Your task to perform on an android device: Clear the cart on bestbuy. Add energizer triple a to the cart on bestbuy, then select checkout. Image 0: 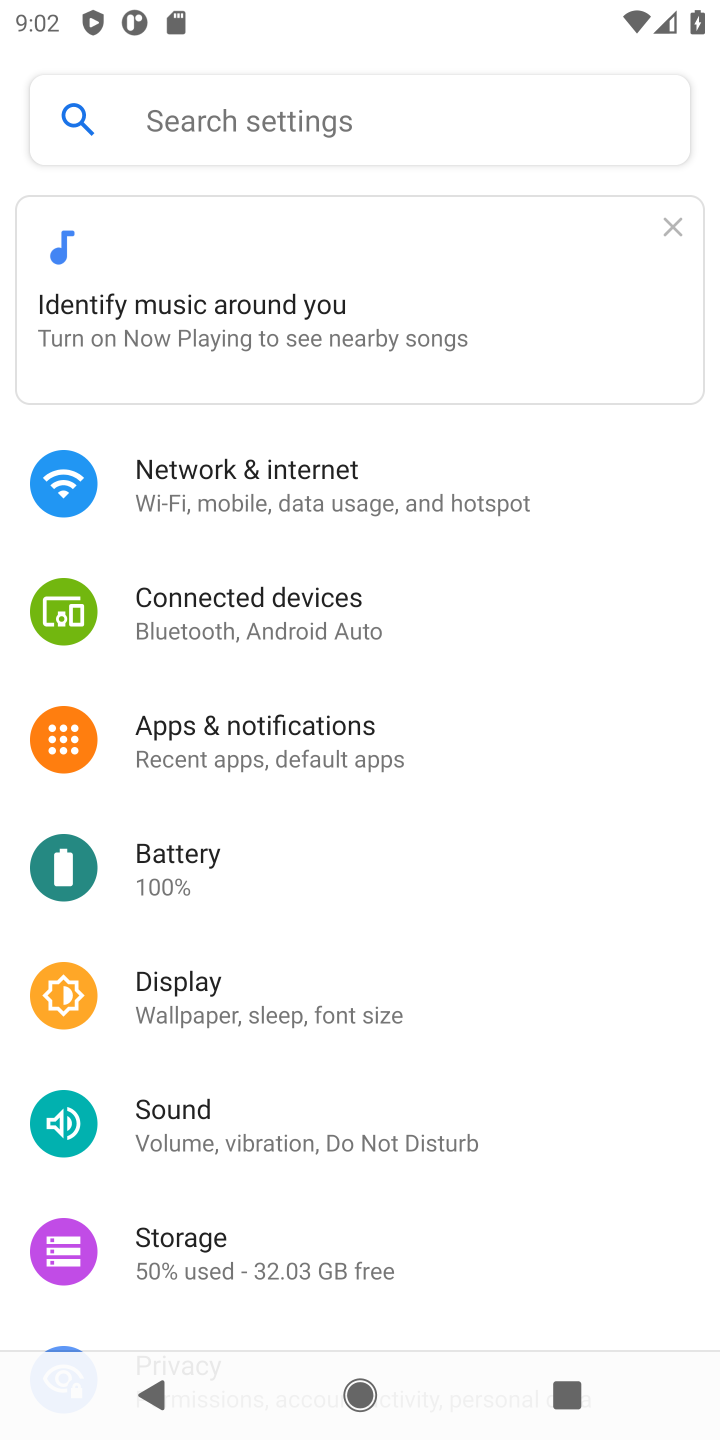
Step 0: press home button
Your task to perform on an android device: Clear the cart on bestbuy. Add energizer triple a to the cart on bestbuy, then select checkout. Image 1: 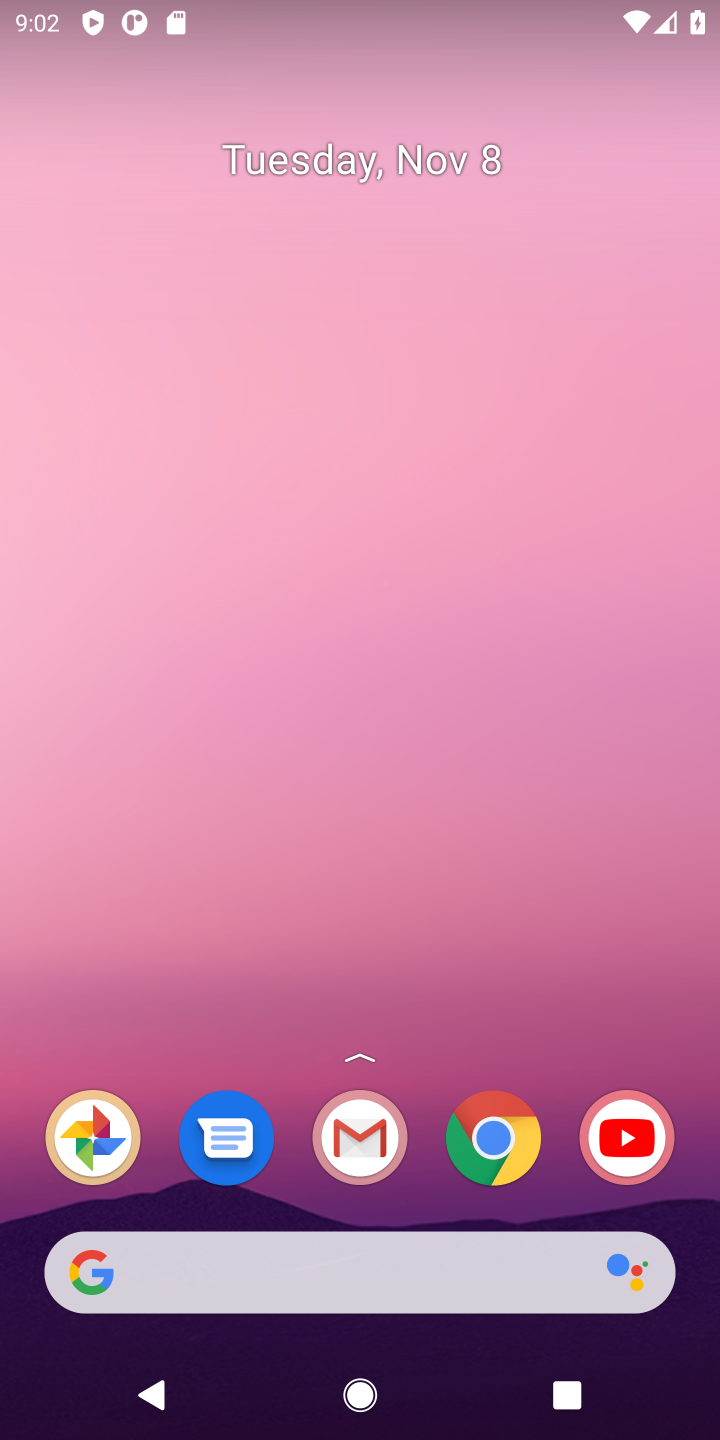
Step 1: click (491, 1144)
Your task to perform on an android device: Clear the cart on bestbuy. Add energizer triple a to the cart on bestbuy, then select checkout. Image 2: 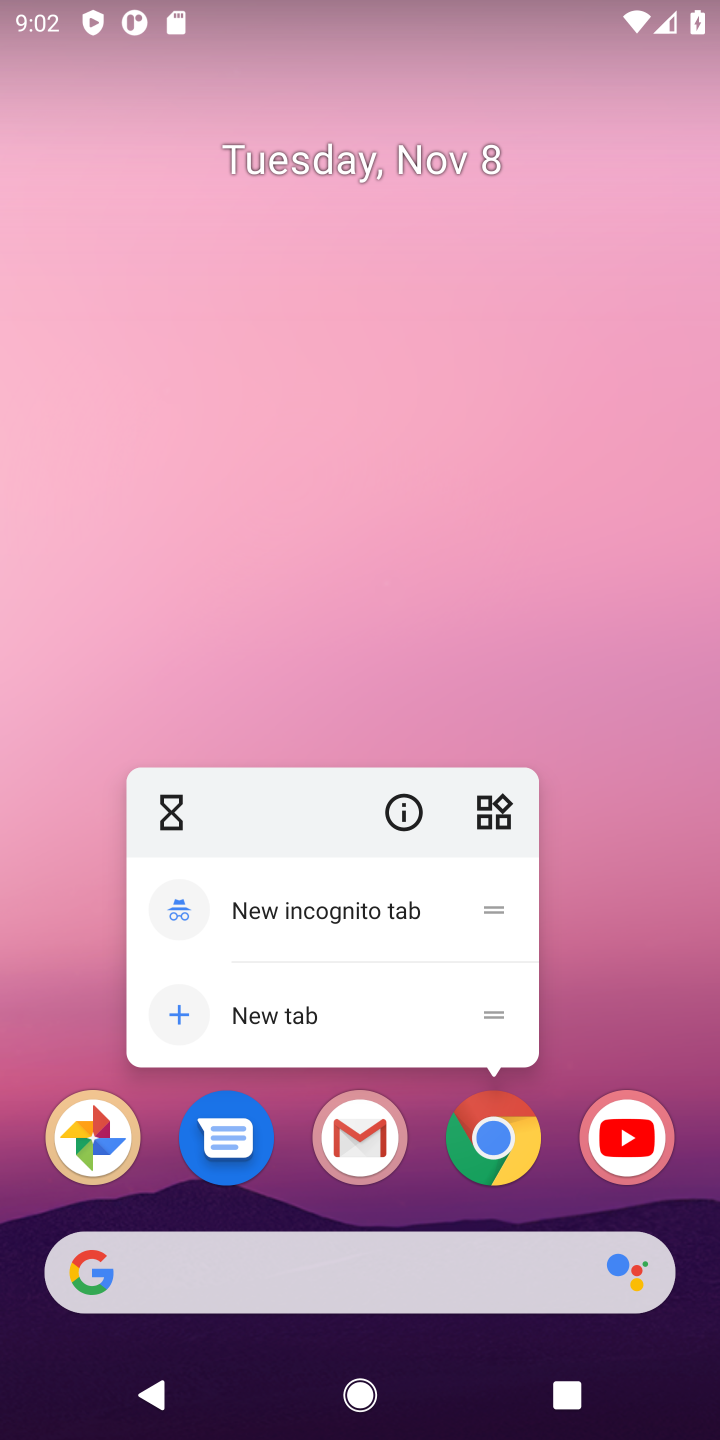
Step 2: click (491, 1142)
Your task to perform on an android device: Clear the cart on bestbuy. Add energizer triple a to the cart on bestbuy, then select checkout. Image 3: 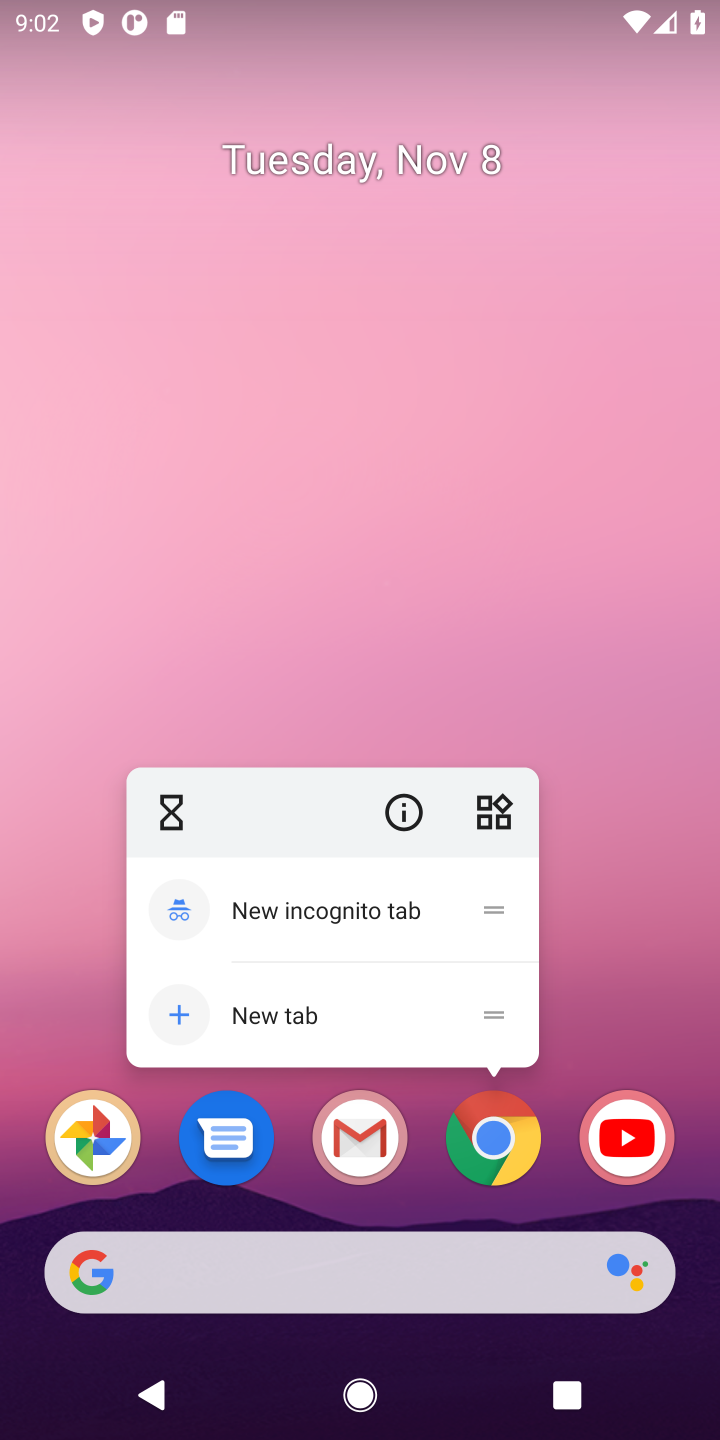
Step 3: click (491, 1146)
Your task to perform on an android device: Clear the cart on bestbuy. Add energizer triple a to the cart on bestbuy, then select checkout. Image 4: 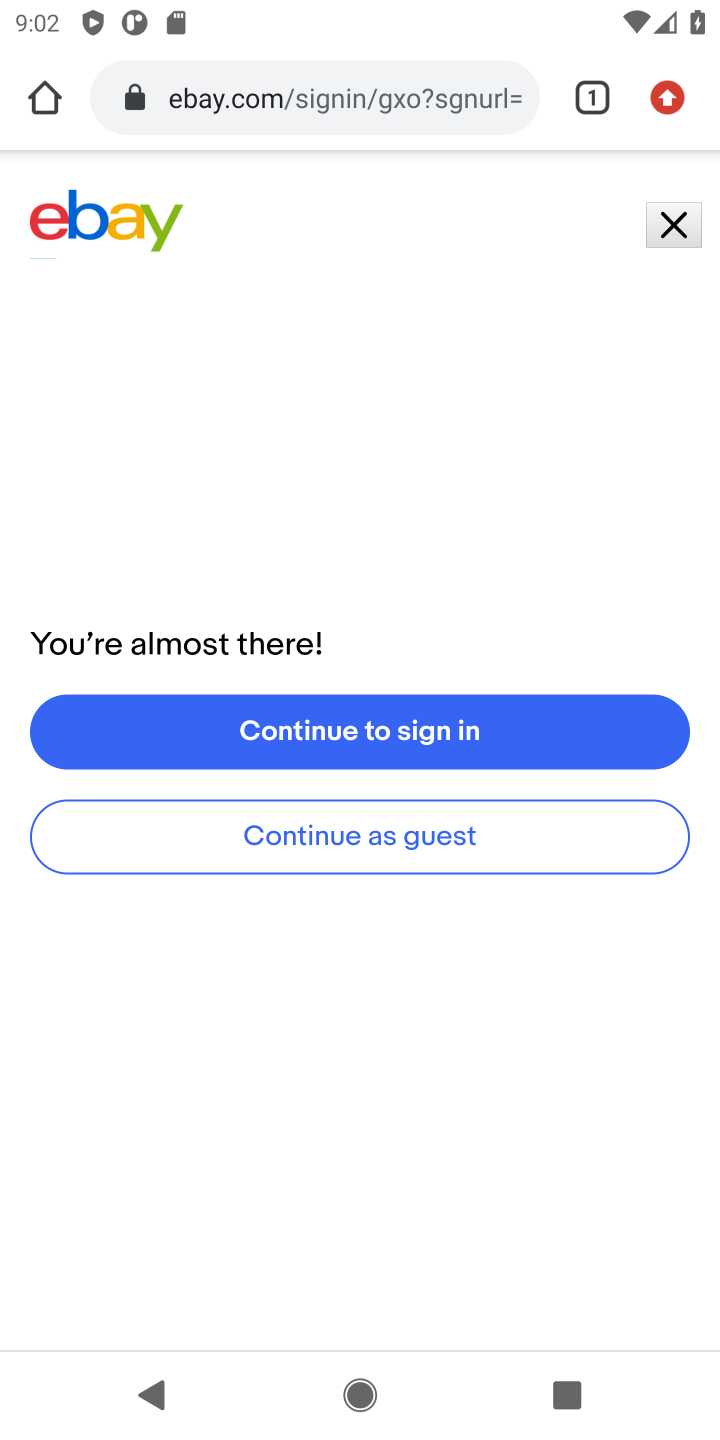
Step 4: click (387, 87)
Your task to perform on an android device: Clear the cart on bestbuy. Add energizer triple a to the cart on bestbuy, then select checkout. Image 5: 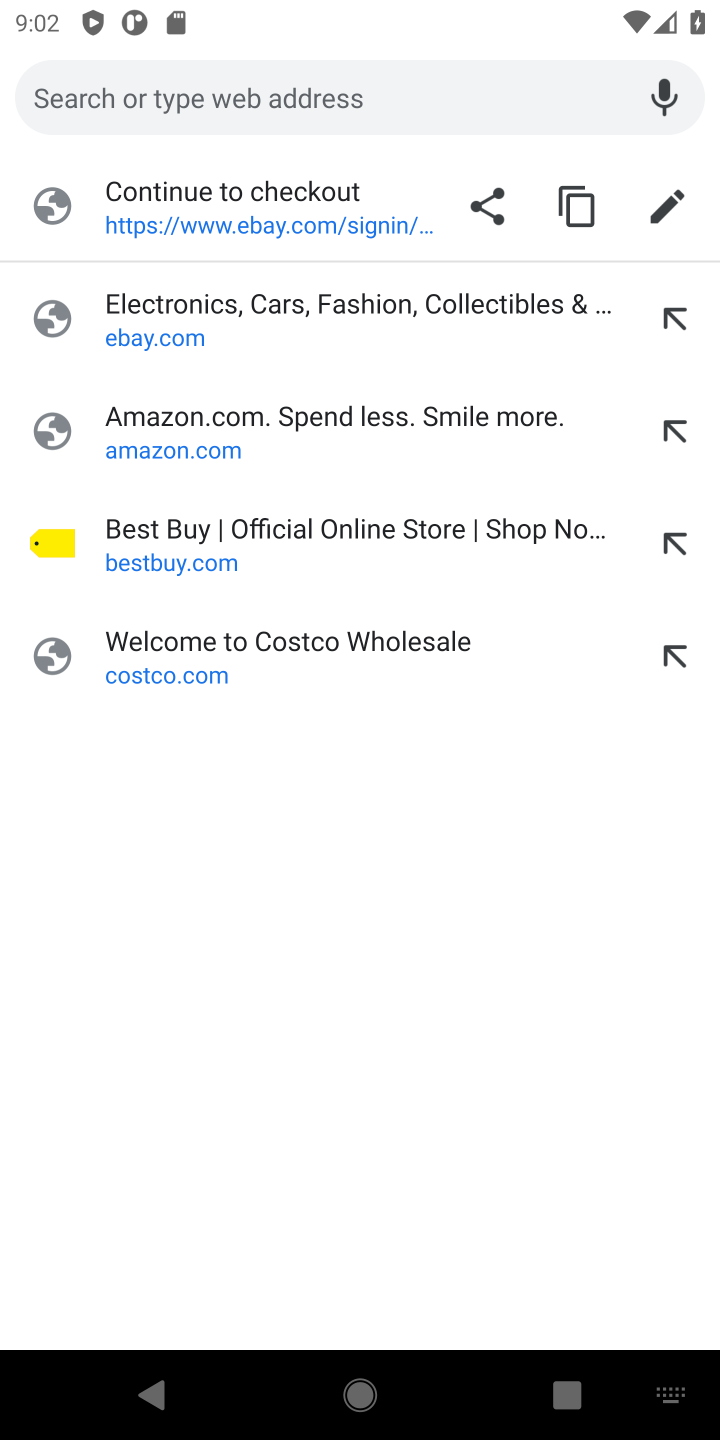
Step 5: click (164, 560)
Your task to perform on an android device: Clear the cart on bestbuy. Add energizer triple a to the cart on bestbuy, then select checkout. Image 6: 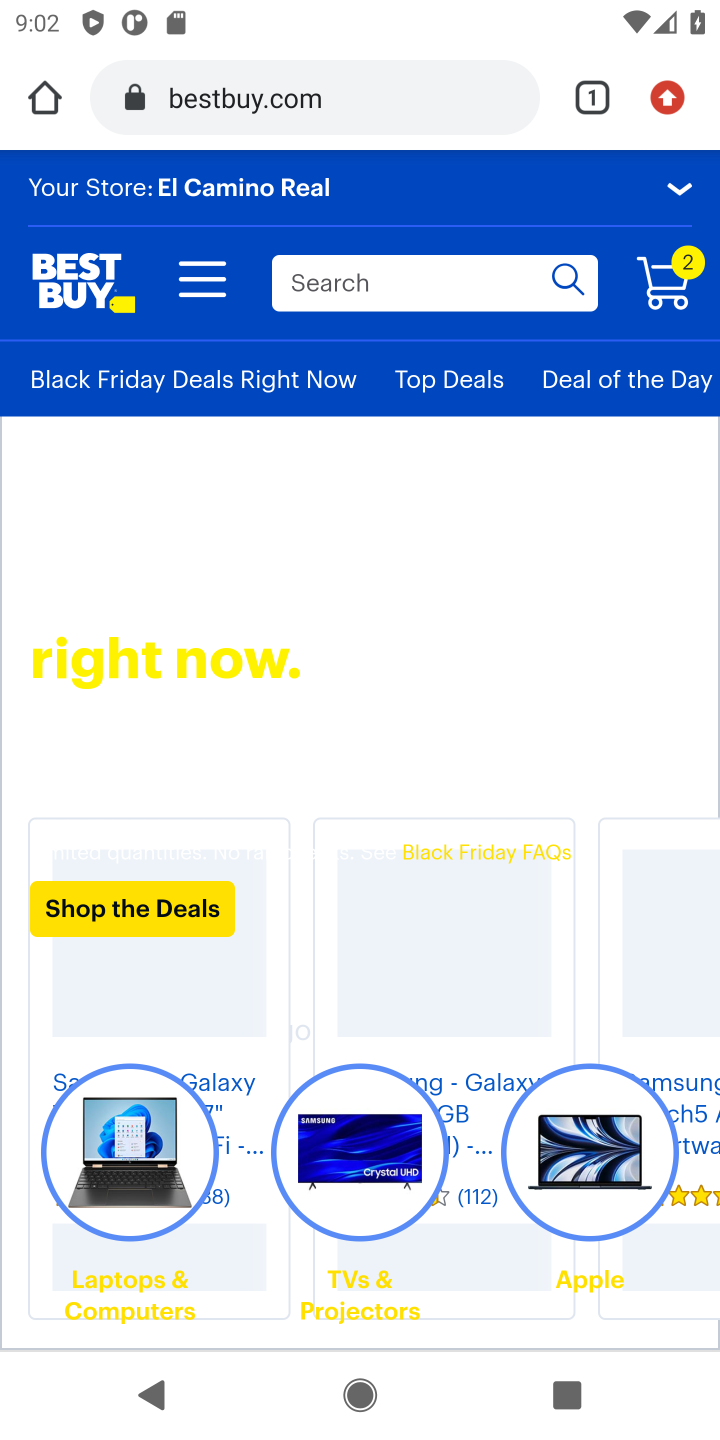
Step 6: click (370, 282)
Your task to perform on an android device: Clear the cart on bestbuy. Add energizer triple a to the cart on bestbuy, then select checkout. Image 7: 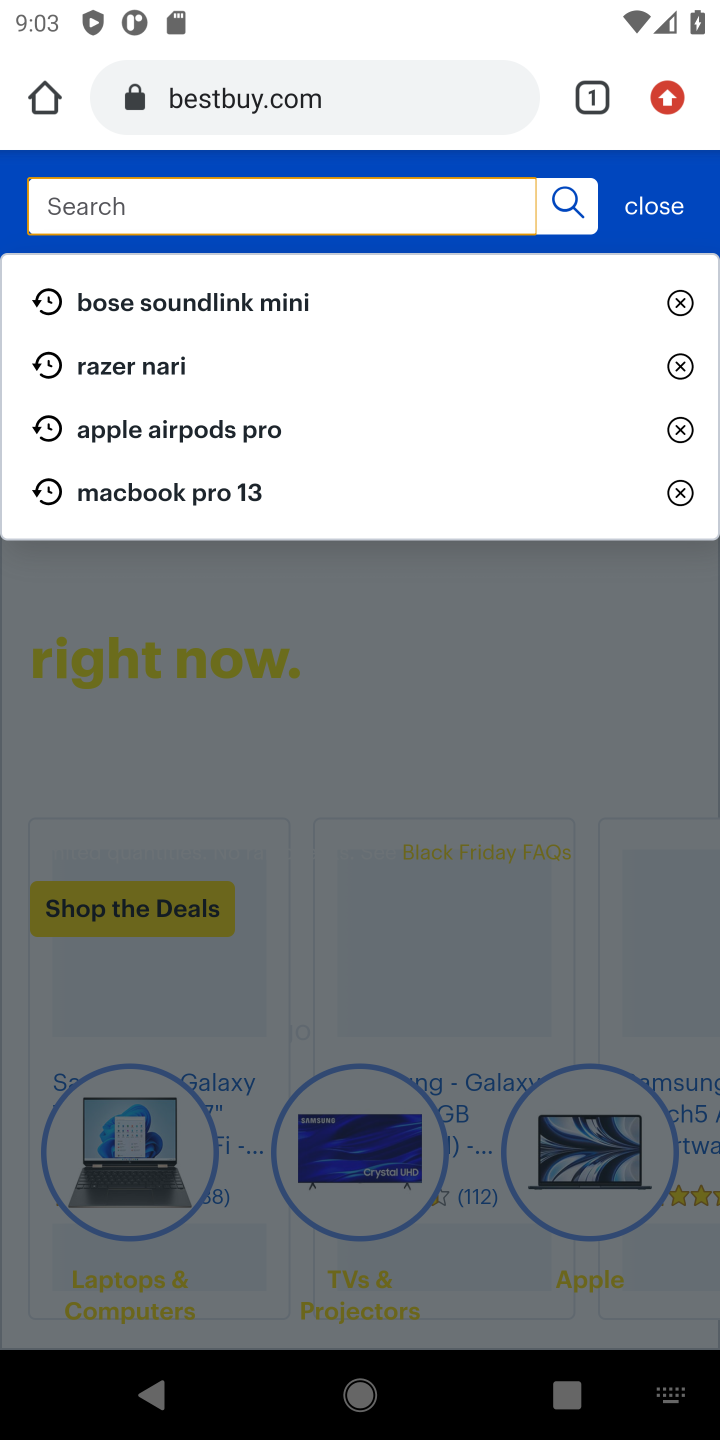
Step 7: type " energizer triple a"
Your task to perform on an android device: Clear the cart on bestbuy. Add energizer triple a to the cart on bestbuy, then select checkout. Image 8: 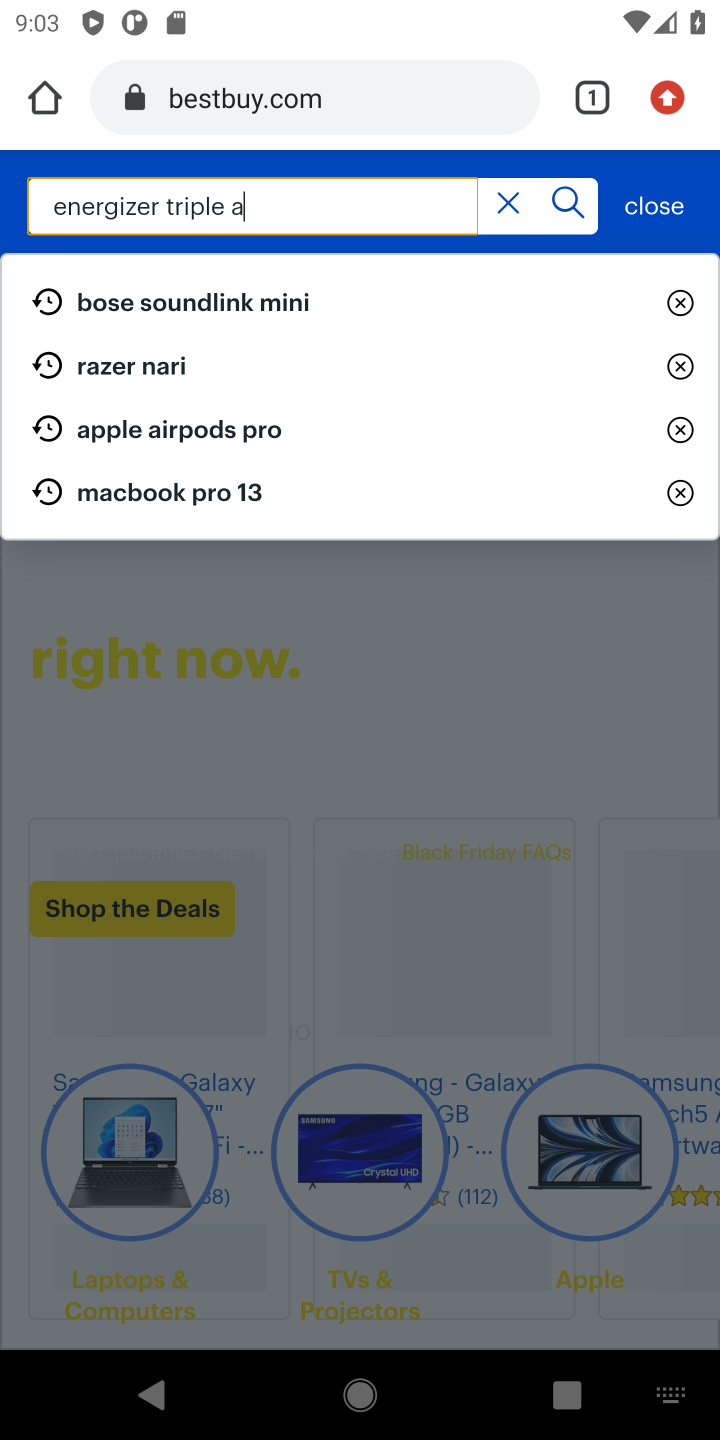
Step 8: press enter
Your task to perform on an android device: Clear the cart on bestbuy. Add energizer triple a to the cart on bestbuy, then select checkout. Image 9: 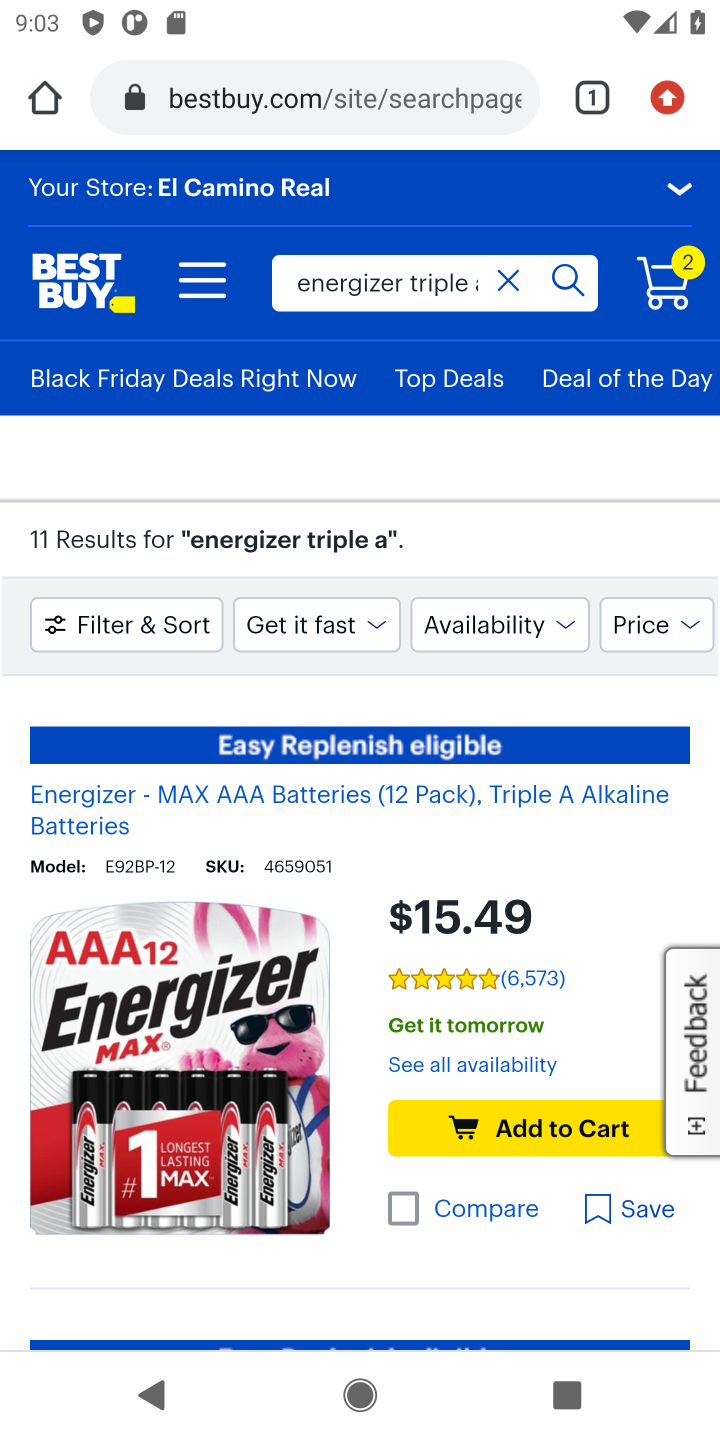
Step 9: drag from (299, 1053) to (485, 535)
Your task to perform on an android device: Clear the cart on bestbuy. Add energizer triple a to the cart on bestbuy, then select checkout. Image 10: 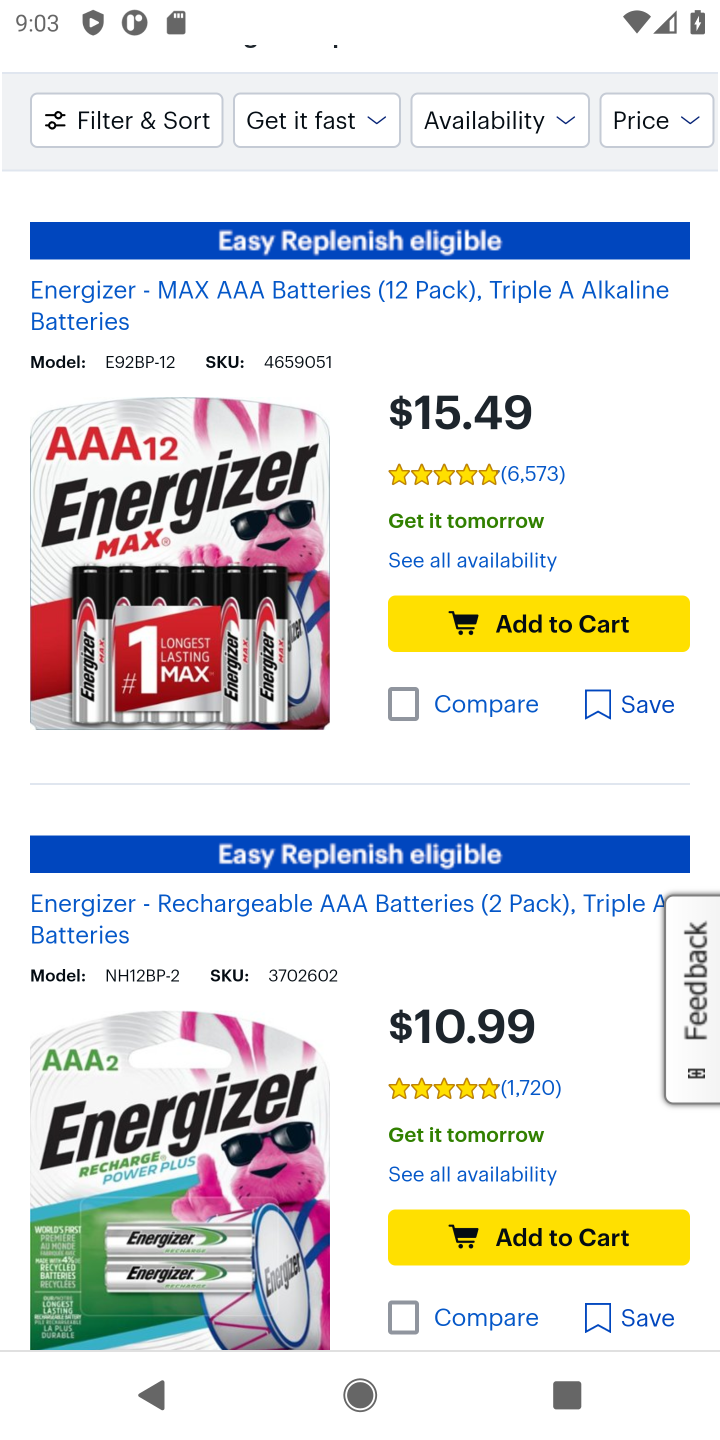
Step 10: click (538, 625)
Your task to perform on an android device: Clear the cart on bestbuy. Add energizer triple a to the cart on bestbuy, then select checkout. Image 11: 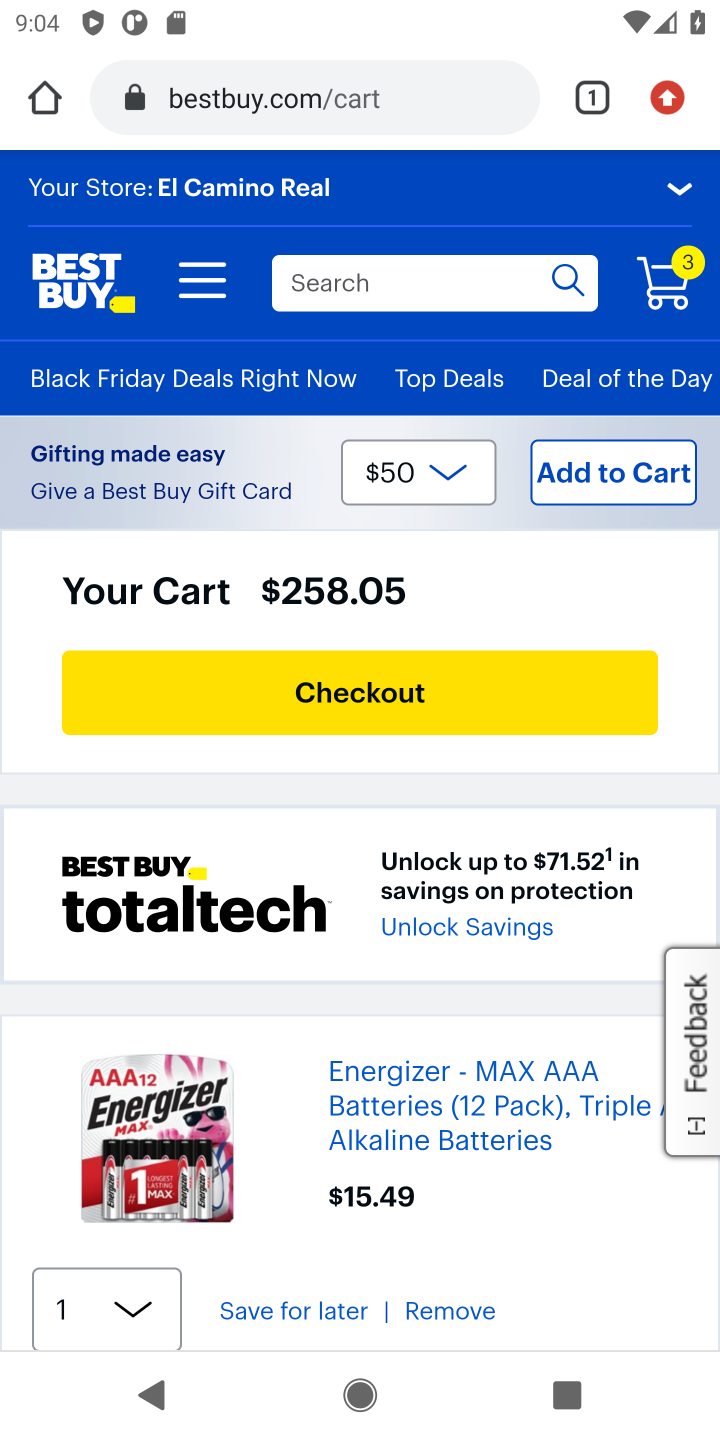
Step 11: drag from (275, 1203) to (463, 607)
Your task to perform on an android device: Clear the cart on bestbuy. Add energizer triple a to the cart on bestbuy, then select checkout. Image 12: 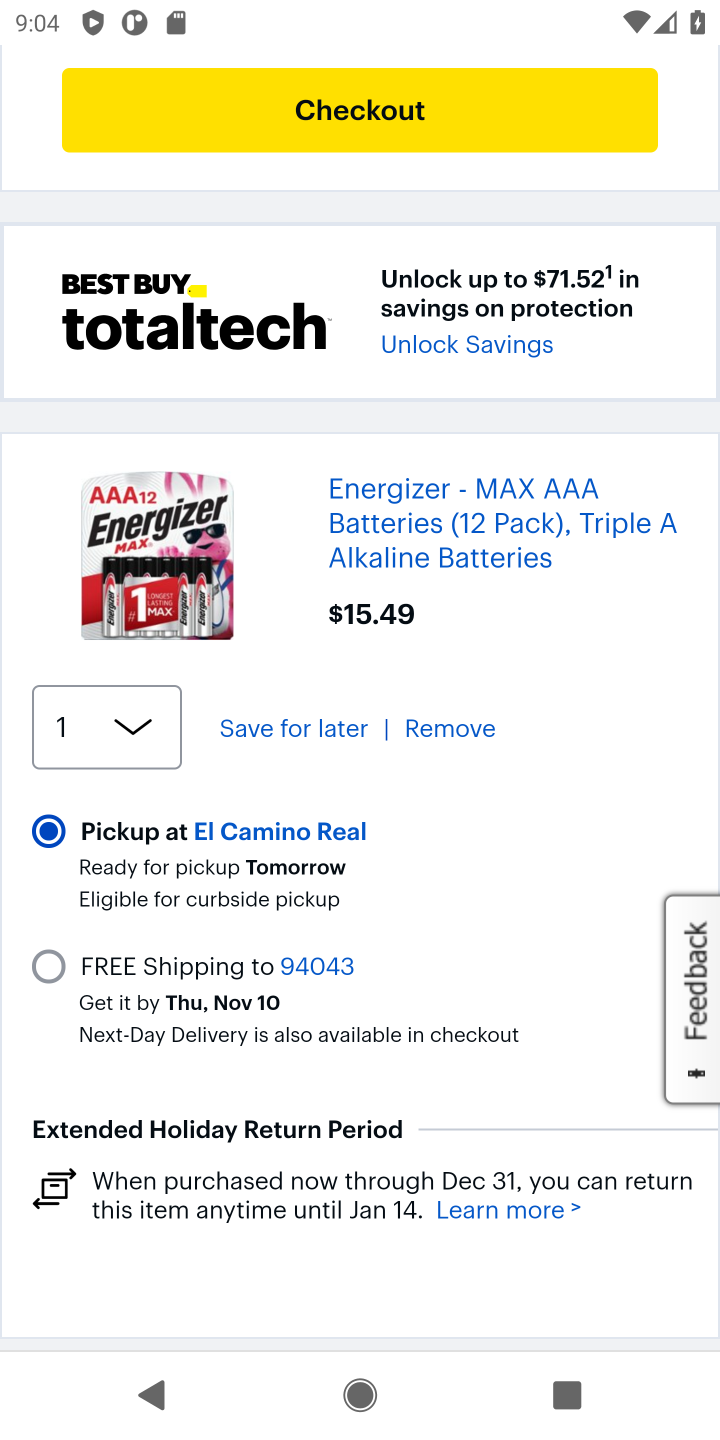
Step 12: drag from (342, 1011) to (543, 381)
Your task to perform on an android device: Clear the cart on bestbuy. Add energizer triple a to the cart on bestbuy, then select checkout. Image 13: 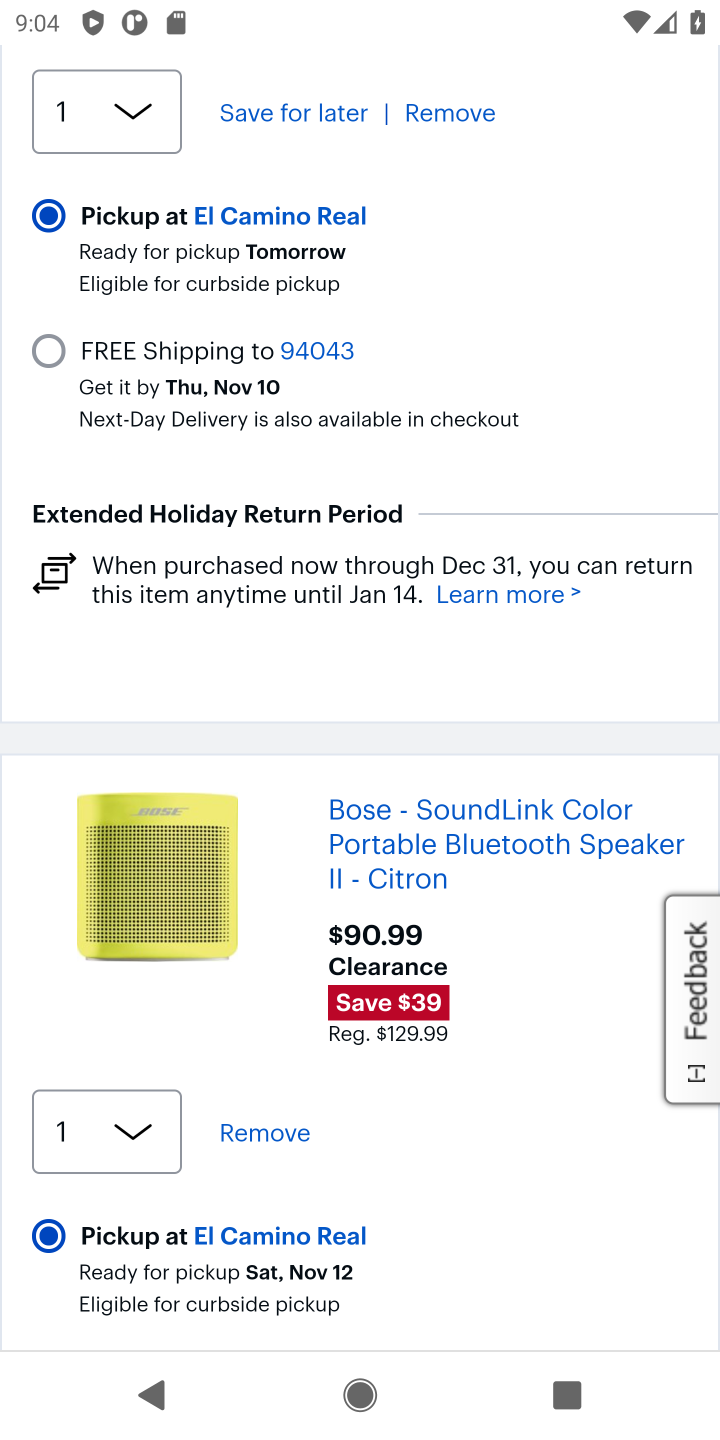
Step 13: click (281, 1132)
Your task to perform on an android device: Clear the cart on bestbuy. Add energizer triple a to the cart on bestbuy, then select checkout. Image 14: 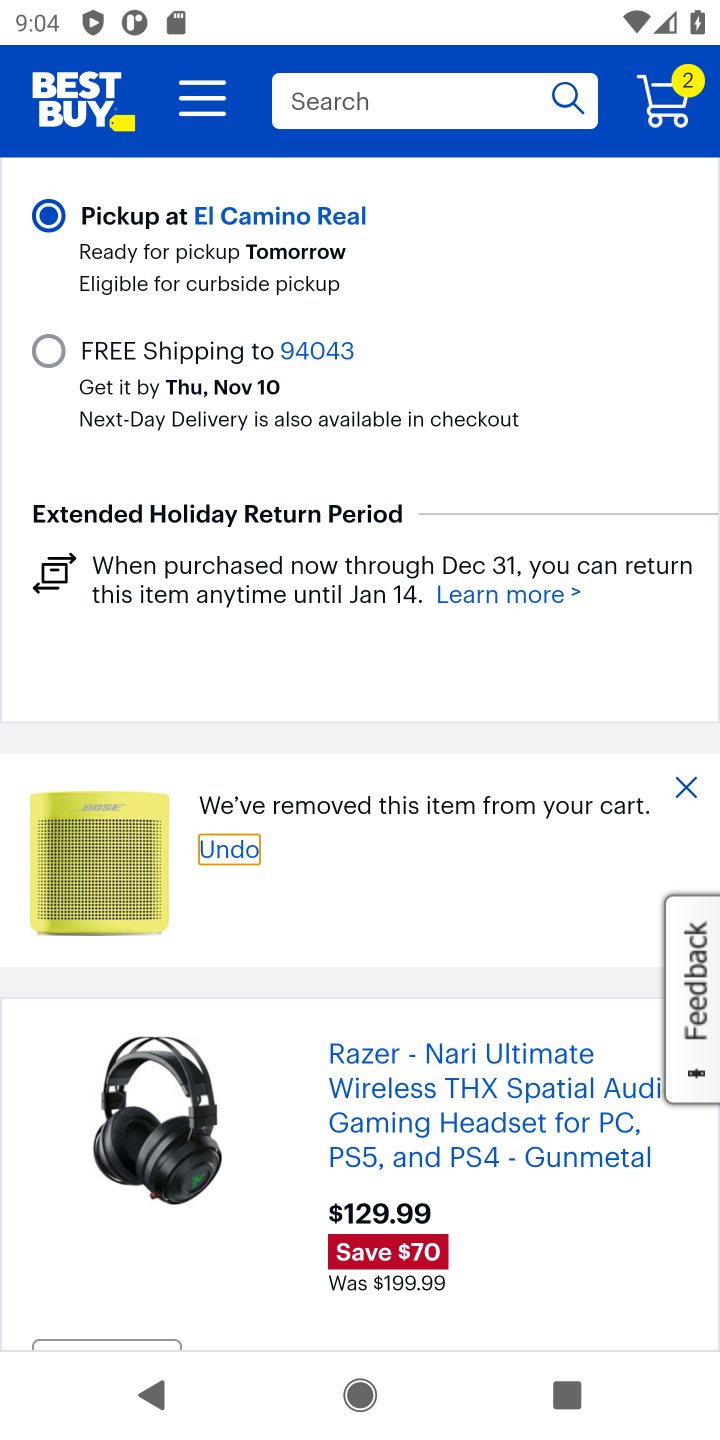
Step 14: drag from (522, 476) to (477, 748)
Your task to perform on an android device: Clear the cart on bestbuy. Add energizer triple a to the cart on bestbuy, then select checkout. Image 15: 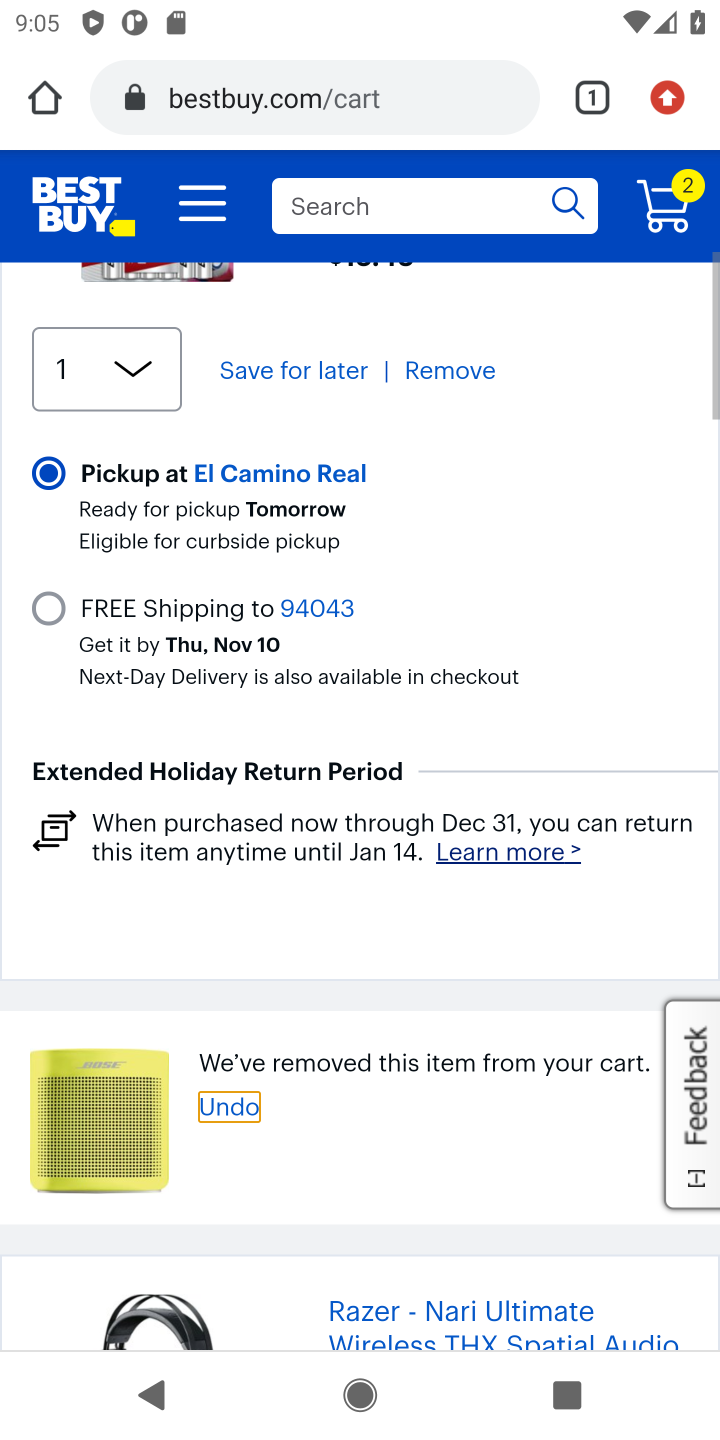
Step 15: drag from (253, 1134) to (295, 213)
Your task to perform on an android device: Clear the cart on bestbuy. Add energizer triple a to the cart on bestbuy, then select checkout. Image 16: 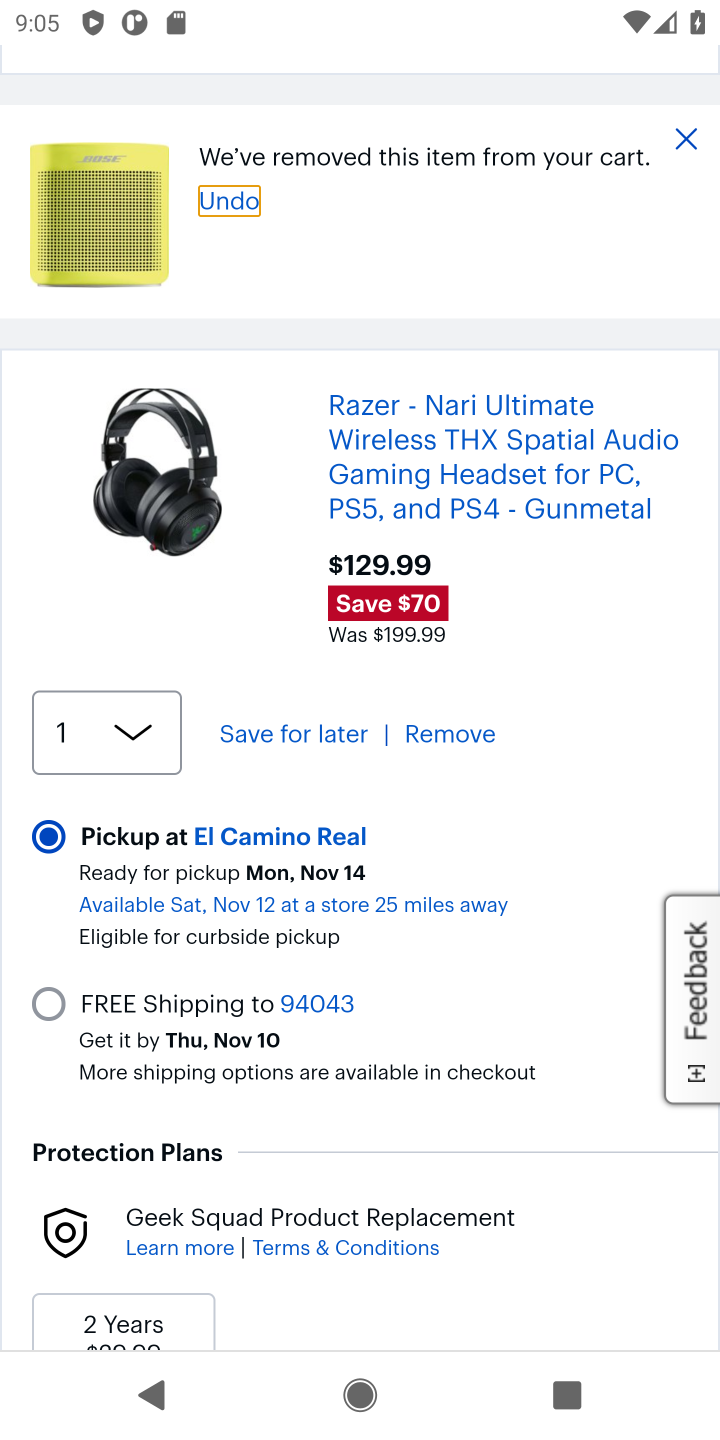
Step 16: click (430, 728)
Your task to perform on an android device: Clear the cart on bestbuy. Add energizer triple a to the cart on bestbuy, then select checkout. Image 17: 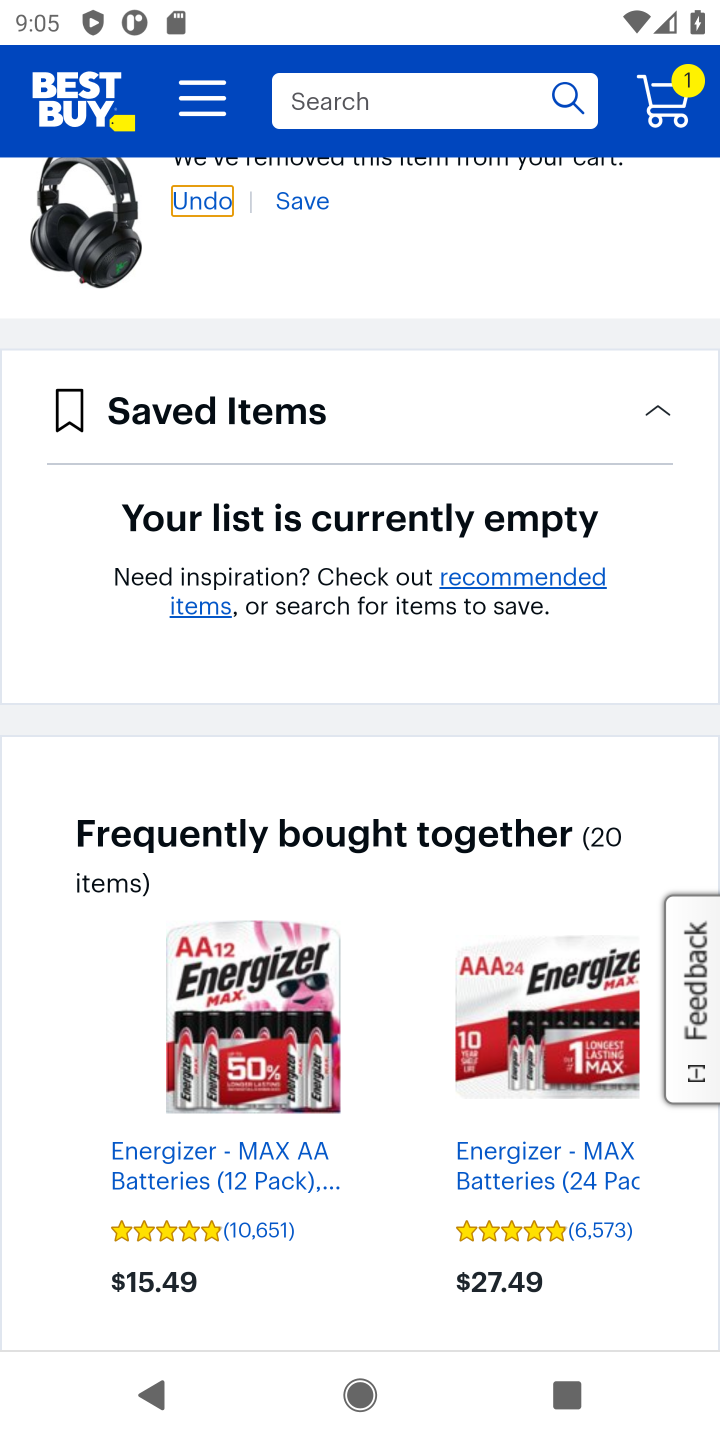
Step 17: drag from (450, 380) to (427, 1254)
Your task to perform on an android device: Clear the cart on bestbuy. Add energizer triple a to the cart on bestbuy, then select checkout. Image 18: 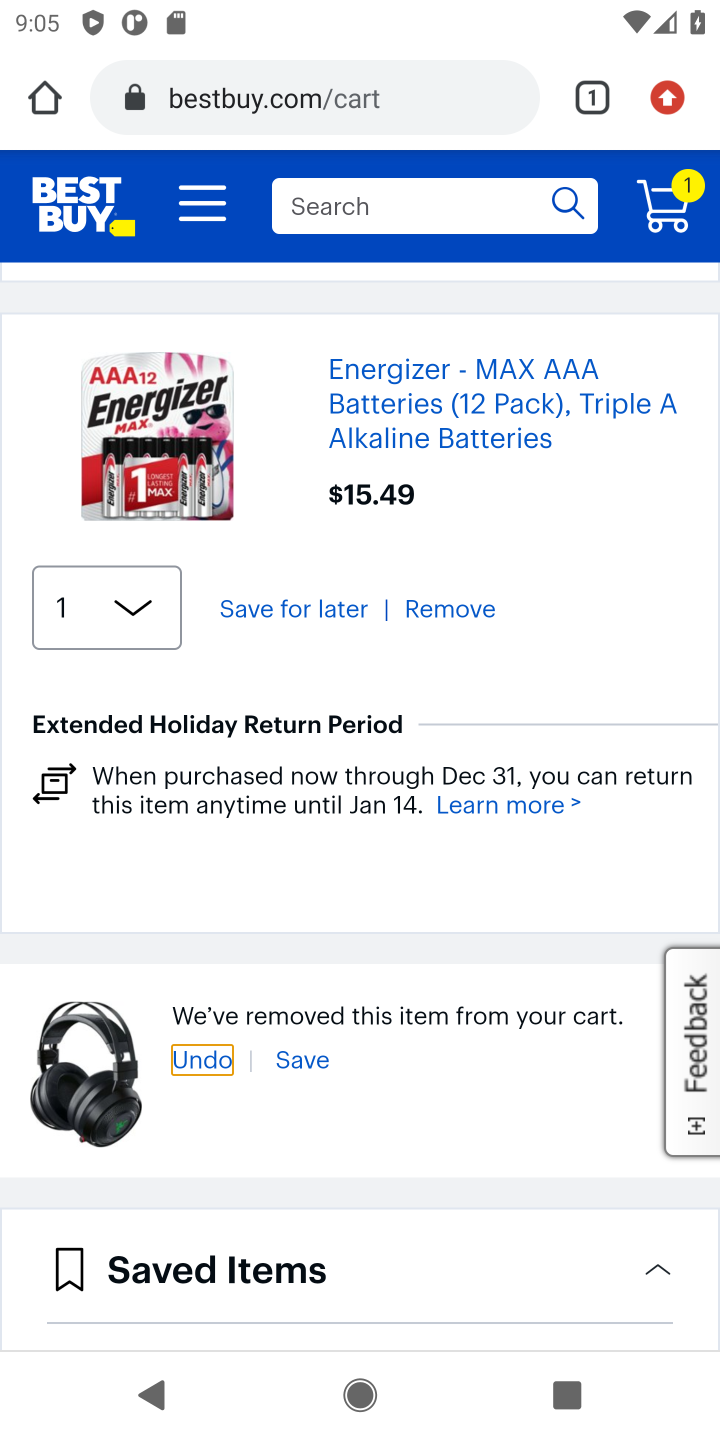
Step 18: drag from (555, 396) to (427, 1021)
Your task to perform on an android device: Clear the cart on bestbuy. Add energizer triple a to the cart on bestbuy, then select checkout. Image 19: 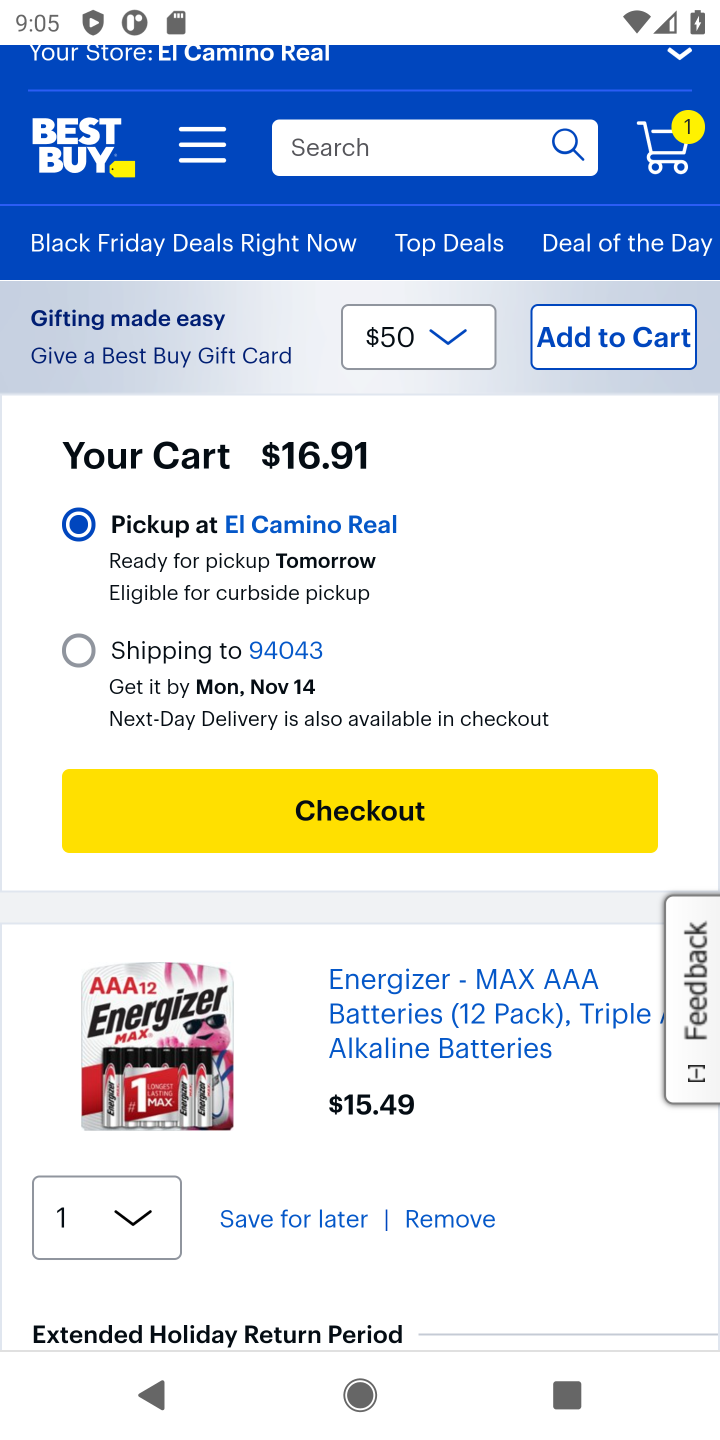
Step 19: click (357, 813)
Your task to perform on an android device: Clear the cart on bestbuy. Add energizer triple a to the cart on bestbuy, then select checkout. Image 20: 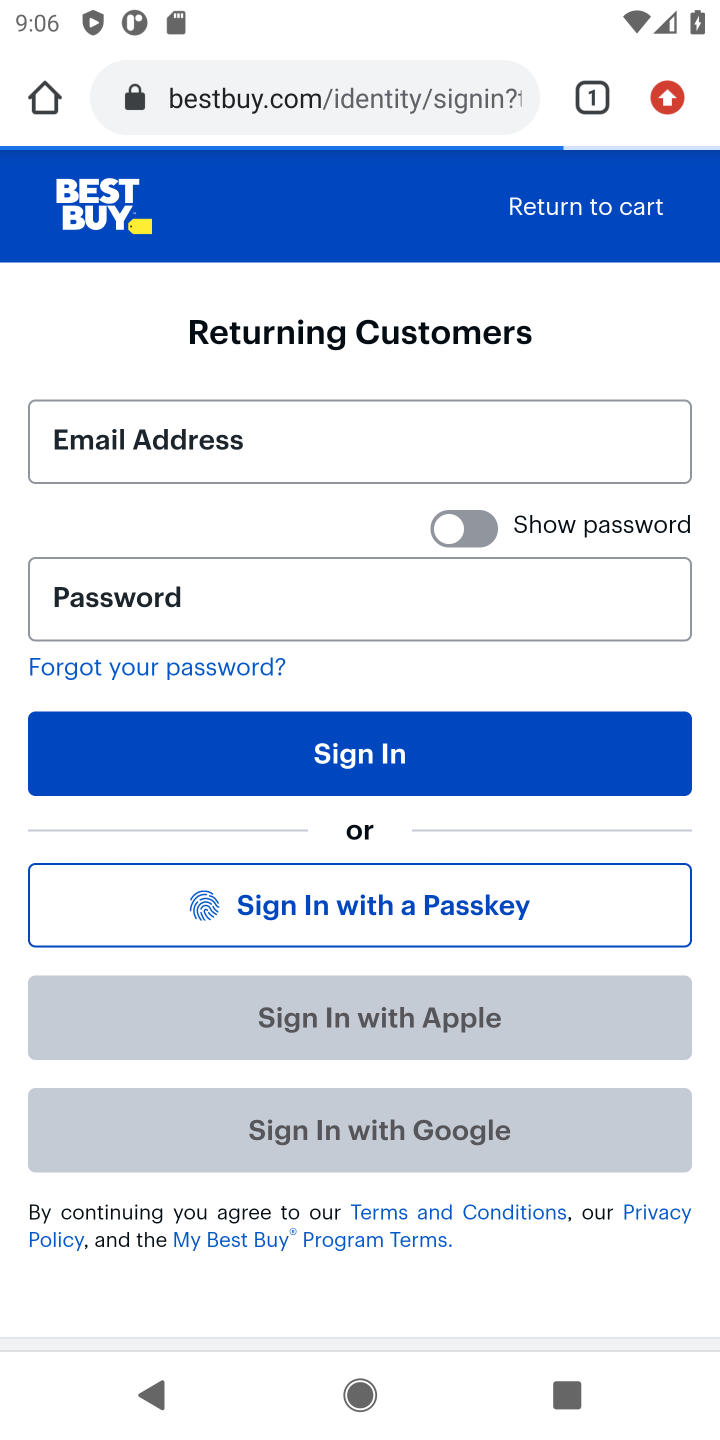
Step 20: task complete